Your task to perform on an android device: Open the phone app and click the voicemail tab. Image 0: 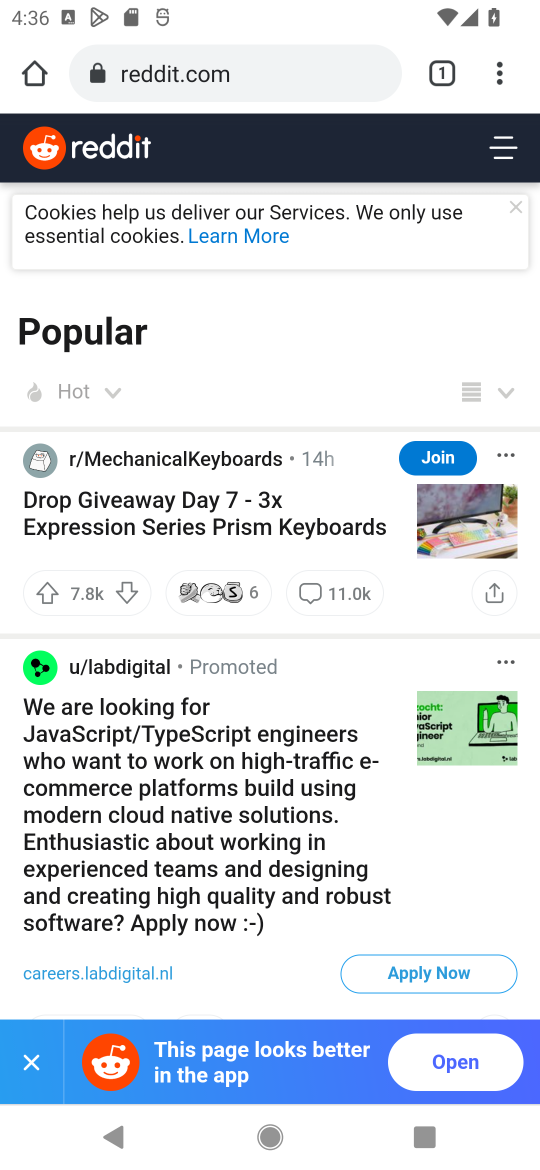
Step 0: click (275, 1143)
Your task to perform on an android device: Open the phone app and click the voicemail tab. Image 1: 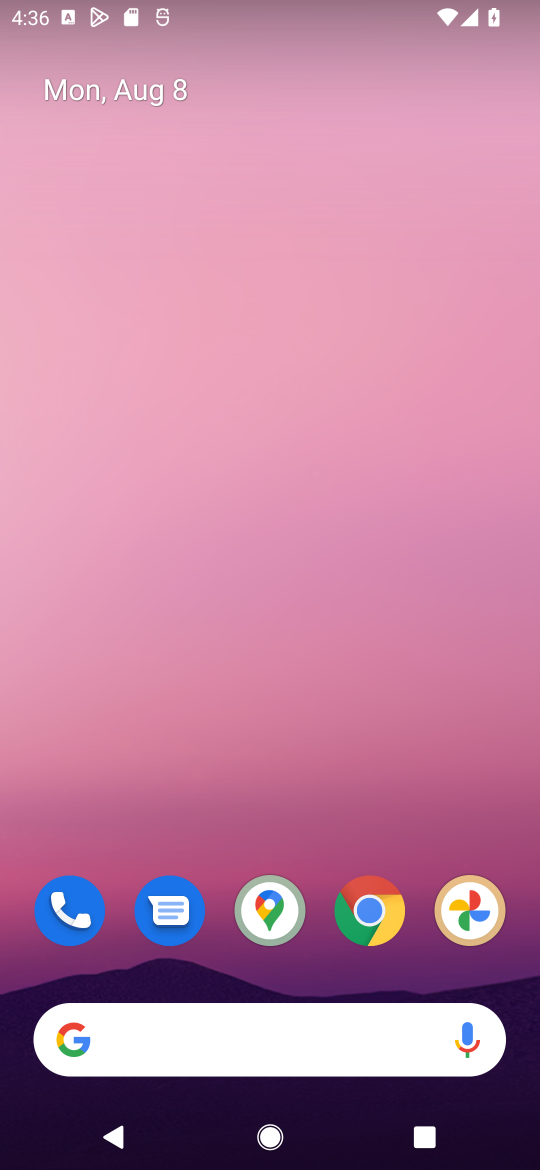
Step 1: click (67, 928)
Your task to perform on an android device: Open the phone app and click the voicemail tab. Image 2: 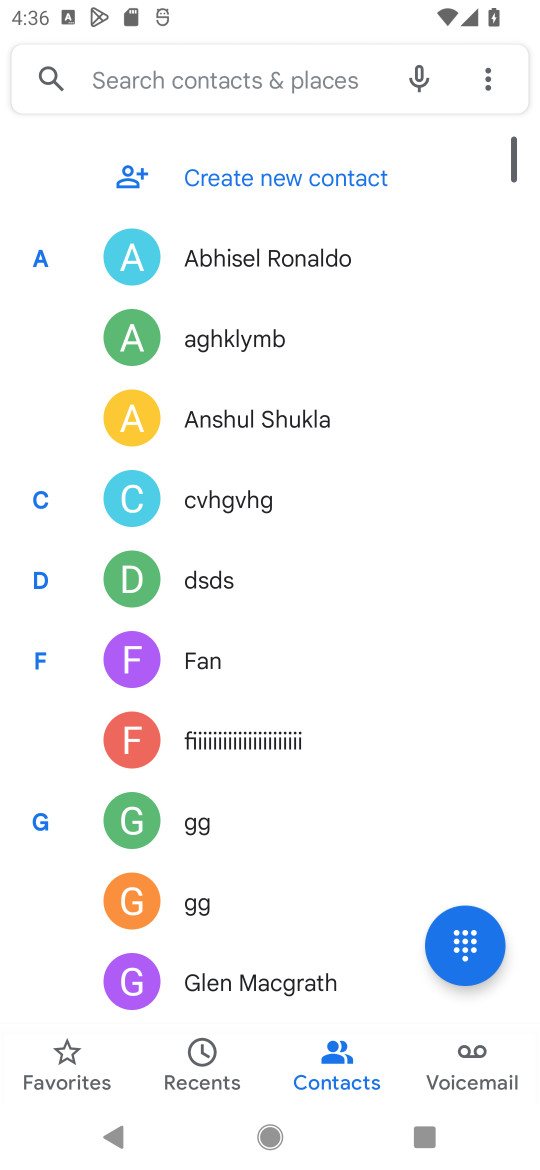
Step 2: click (473, 1073)
Your task to perform on an android device: Open the phone app and click the voicemail tab. Image 3: 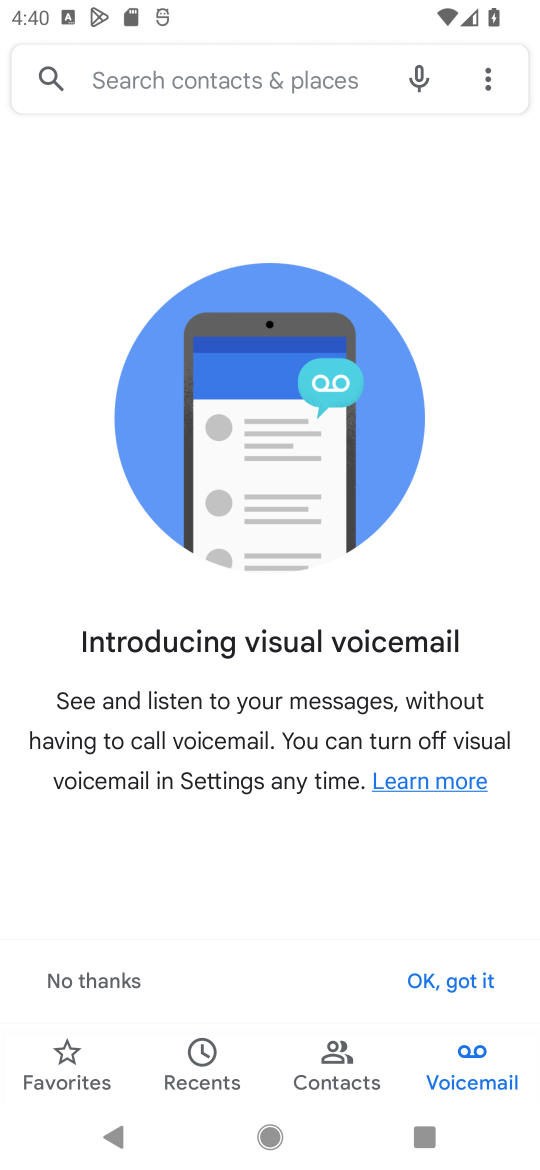
Step 3: task complete